Your task to perform on an android device: turn off translation in the chrome app Image 0: 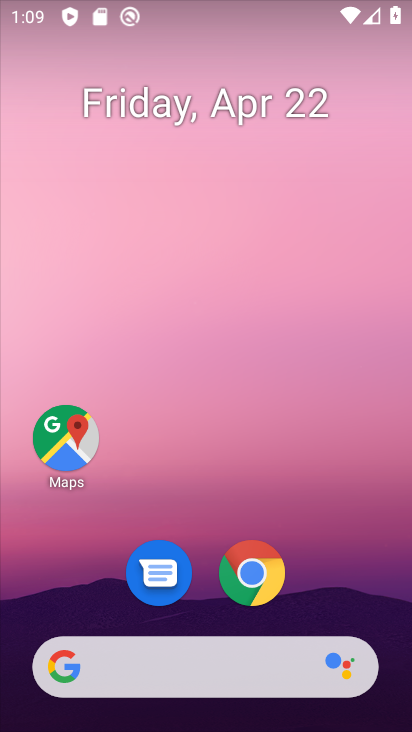
Step 0: click (277, 560)
Your task to perform on an android device: turn off translation in the chrome app Image 1: 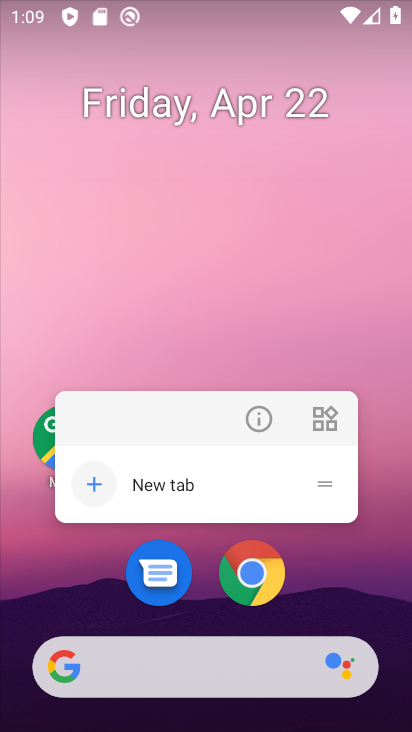
Step 1: click (243, 559)
Your task to perform on an android device: turn off translation in the chrome app Image 2: 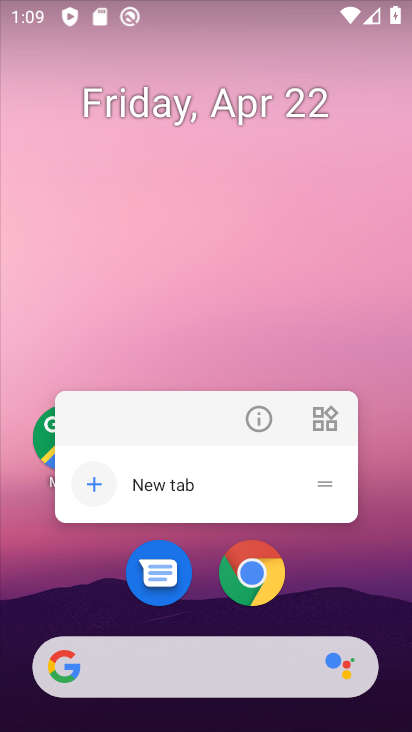
Step 2: click (243, 559)
Your task to perform on an android device: turn off translation in the chrome app Image 3: 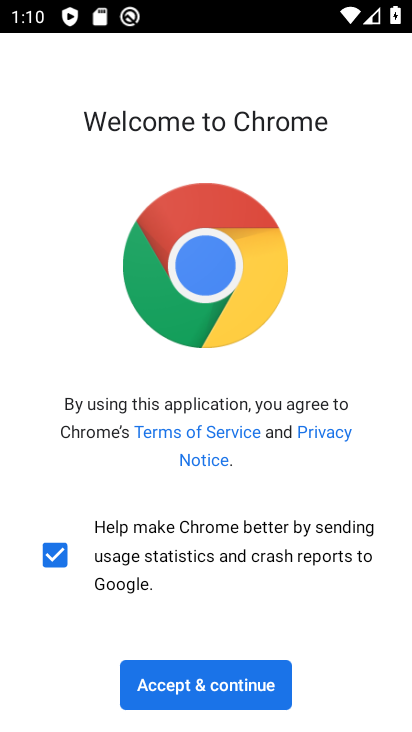
Step 3: click (211, 676)
Your task to perform on an android device: turn off translation in the chrome app Image 4: 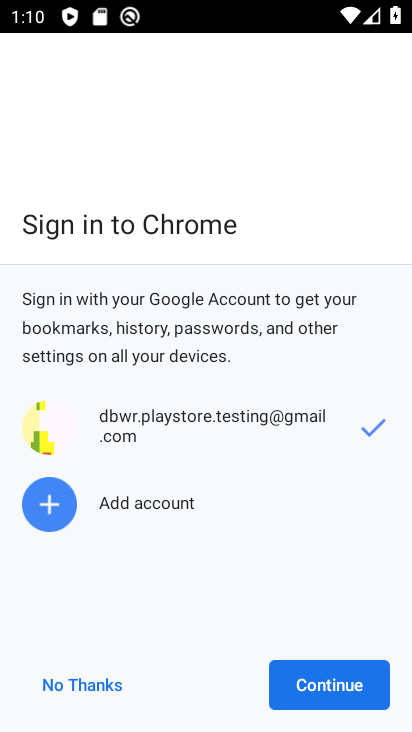
Step 4: click (345, 696)
Your task to perform on an android device: turn off translation in the chrome app Image 5: 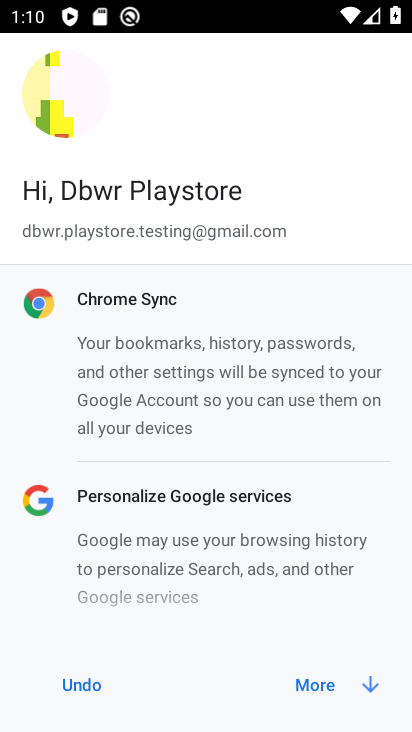
Step 5: click (358, 672)
Your task to perform on an android device: turn off translation in the chrome app Image 6: 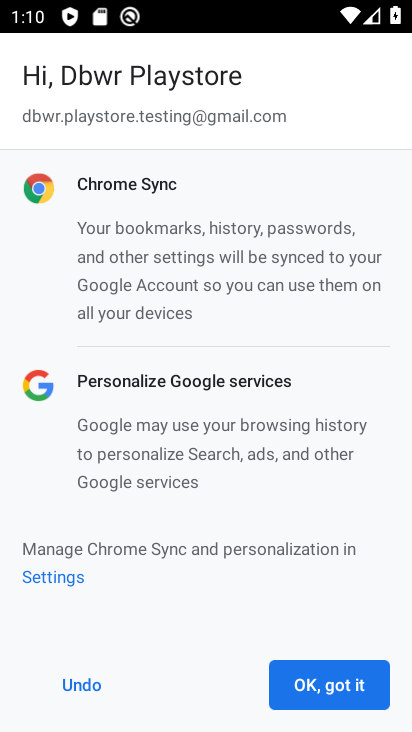
Step 6: click (363, 692)
Your task to perform on an android device: turn off translation in the chrome app Image 7: 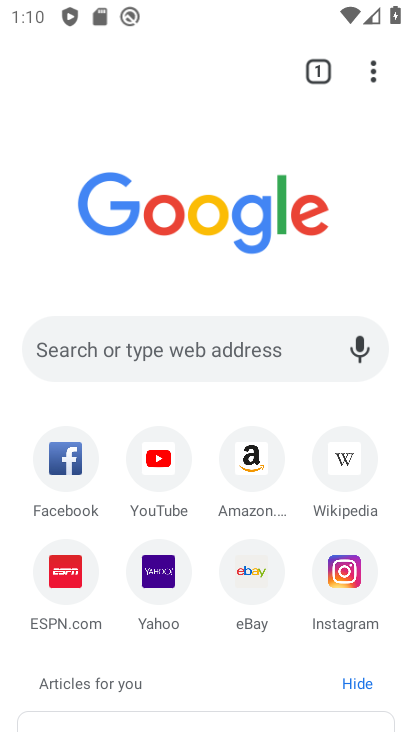
Step 7: click (382, 76)
Your task to perform on an android device: turn off translation in the chrome app Image 8: 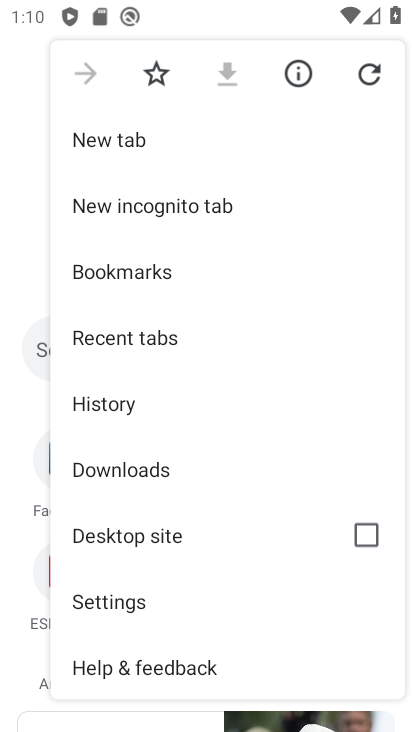
Step 8: click (119, 595)
Your task to perform on an android device: turn off translation in the chrome app Image 9: 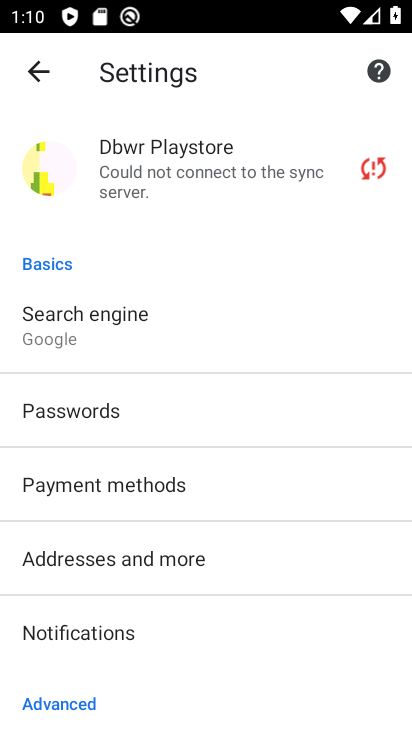
Step 9: drag from (119, 595) to (177, 166)
Your task to perform on an android device: turn off translation in the chrome app Image 10: 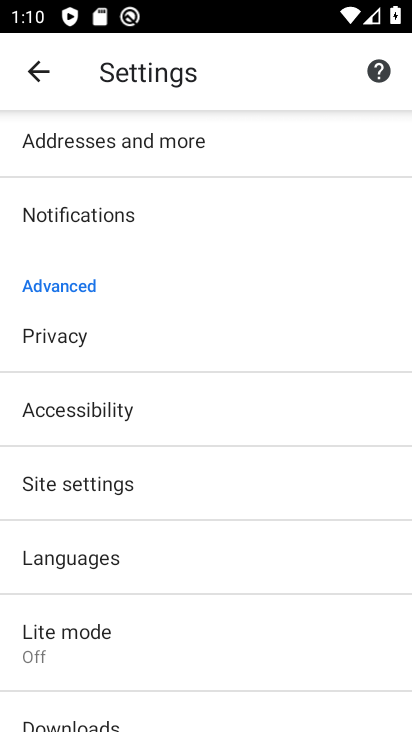
Step 10: click (184, 544)
Your task to perform on an android device: turn off translation in the chrome app Image 11: 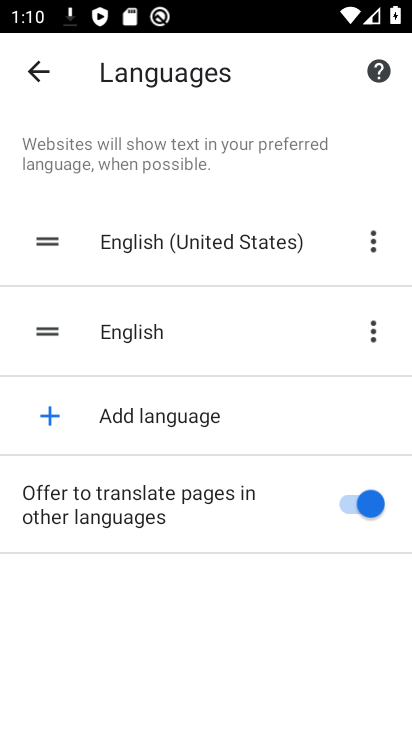
Step 11: click (379, 506)
Your task to perform on an android device: turn off translation in the chrome app Image 12: 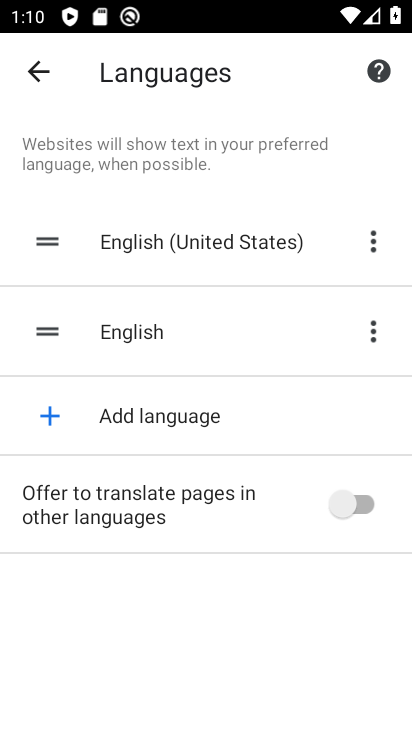
Step 12: task complete